Your task to perform on an android device: Open Maps and search for coffee Image 0: 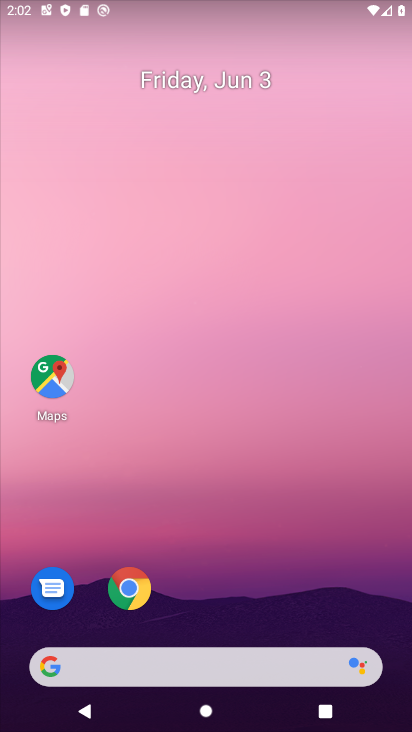
Step 0: drag from (223, 600) to (213, 161)
Your task to perform on an android device: Open Maps and search for coffee Image 1: 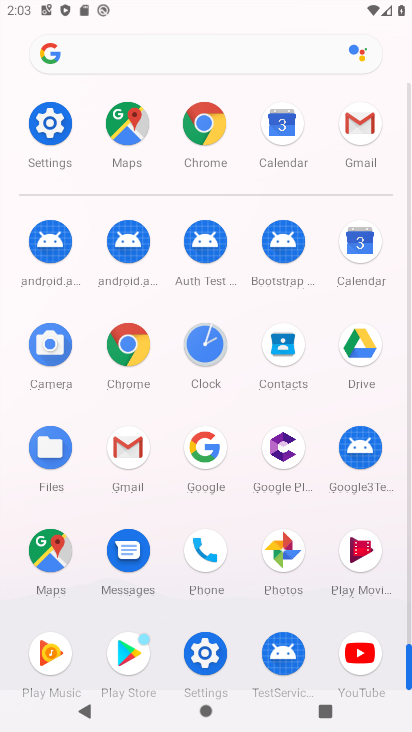
Step 1: click (44, 561)
Your task to perform on an android device: Open Maps and search for coffee Image 2: 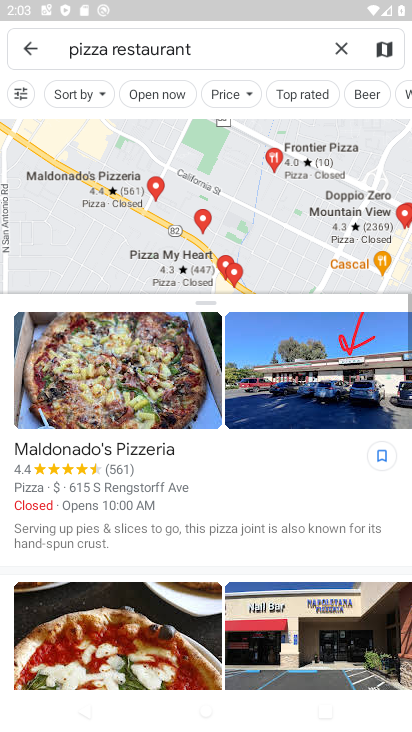
Step 2: click (336, 53)
Your task to perform on an android device: Open Maps and search for coffee Image 3: 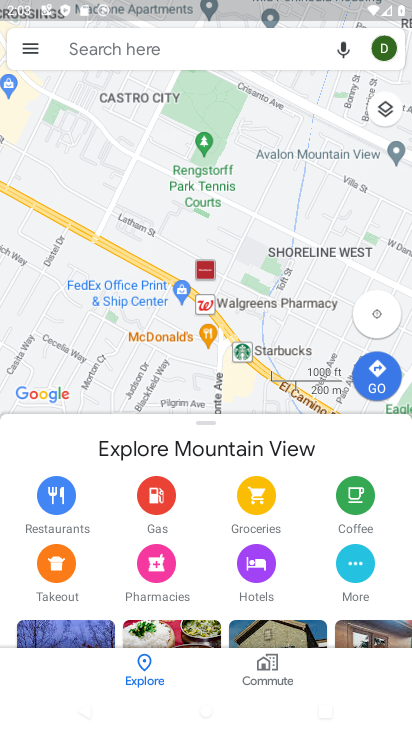
Step 3: click (213, 58)
Your task to perform on an android device: Open Maps and search for coffee Image 4: 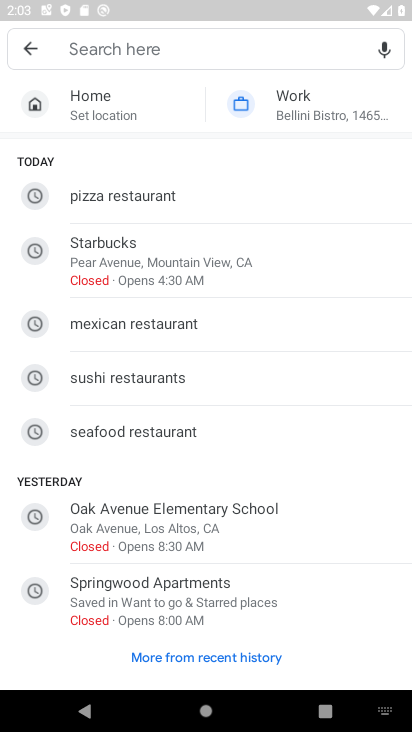
Step 4: type "coffee"
Your task to perform on an android device: Open Maps and search for coffee Image 5: 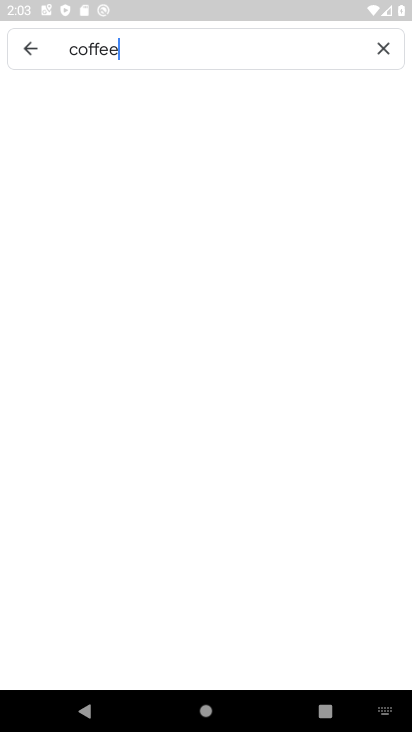
Step 5: type ""
Your task to perform on an android device: Open Maps and search for coffee Image 6: 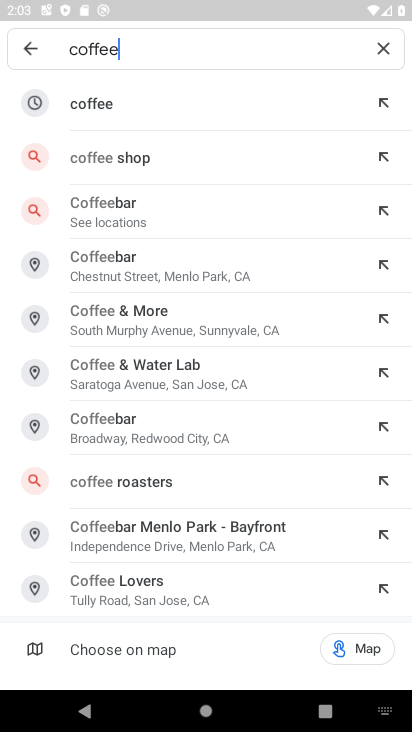
Step 6: click (120, 109)
Your task to perform on an android device: Open Maps and search for coffee Image 7: 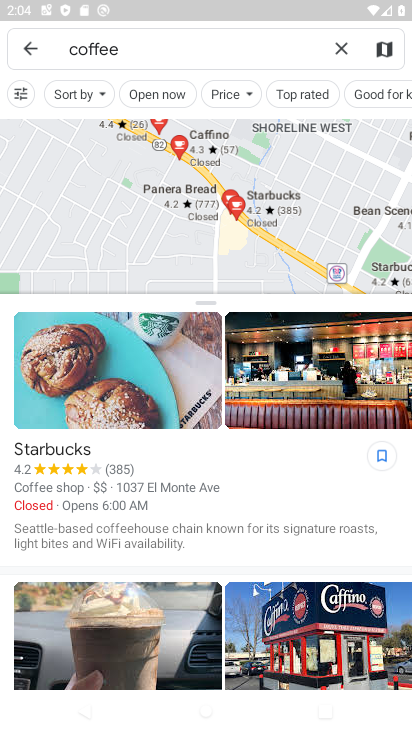
Step 7: task complete